Your task to perform on an android device: toggle notification dots Image 0: 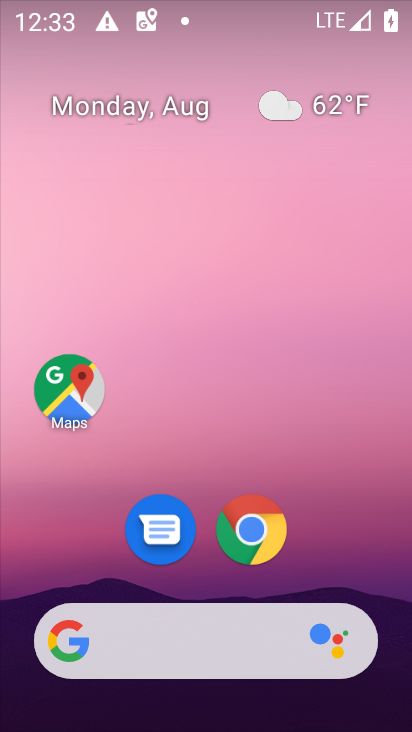
Step 0: drag from (158, 625) to (147, 388)
Your task to perform on an android device: toggle notification dots Image 1: 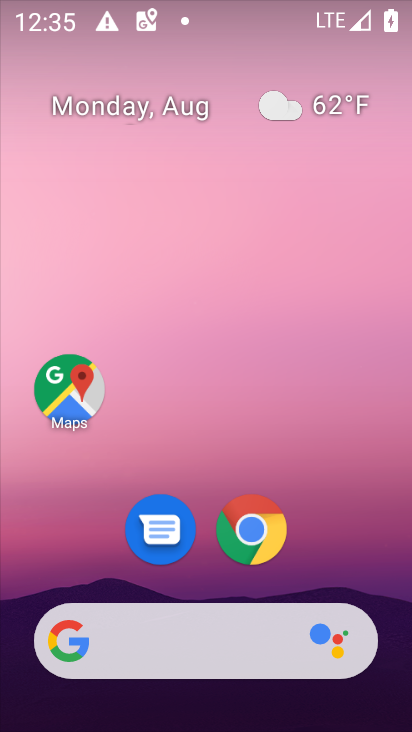
Step 1: drag from (159, 619) to (173, 157)
Your task to perform on an android device: toggle notification dots Image 2: 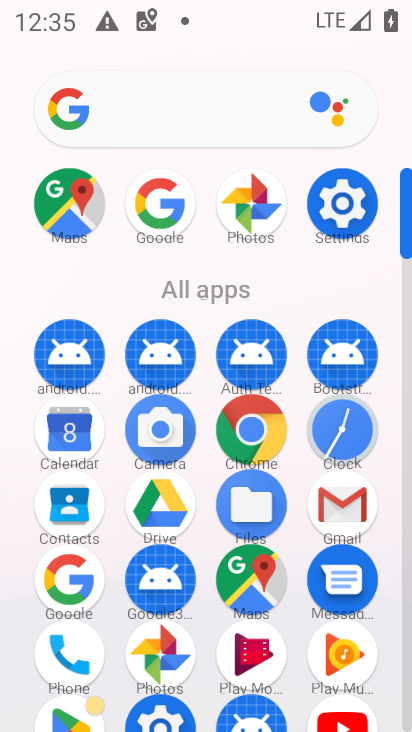
Step 2: click (348, 203)
Your task to perform on an android device: toggle notification dots Image 3: 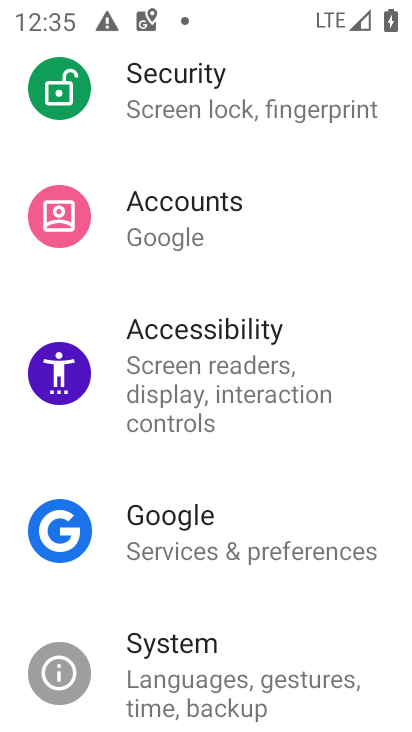
Step 3: drag from (348, 157) to (314, 568)
Your task to perform on an android device: toggle notification dots Image 4: 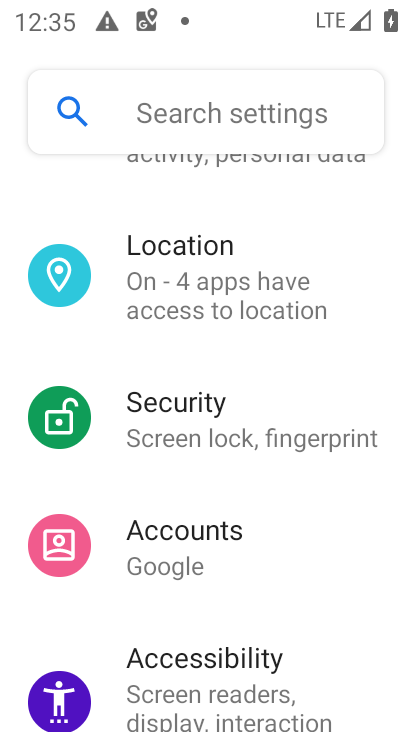
Step 4: drag from (211, 217) to (210, 573)
Your task to perform on an android device: toggle notification dots Image 5: 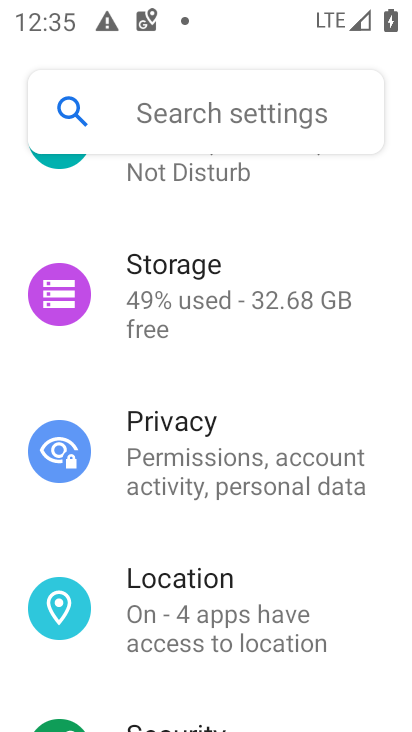
Step 5: drag from (188, 214) to (188, 566)
Your task to perform on an android device: toggle notification dots Image 6: 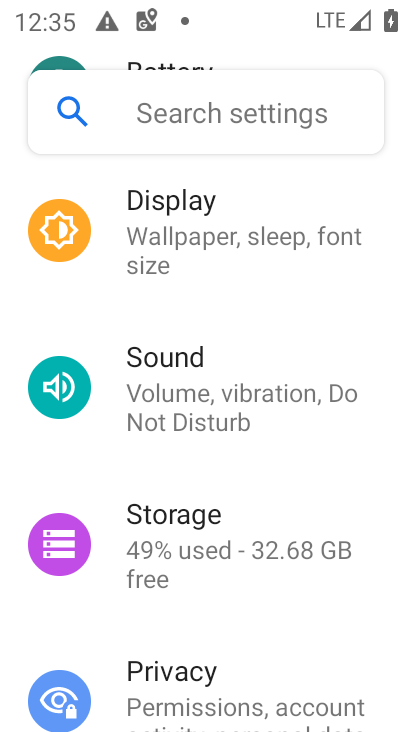
Step 6: drag from (152, 193) to (152, 580)
Your task to perform on an android device: toggle notification dots Image 7: 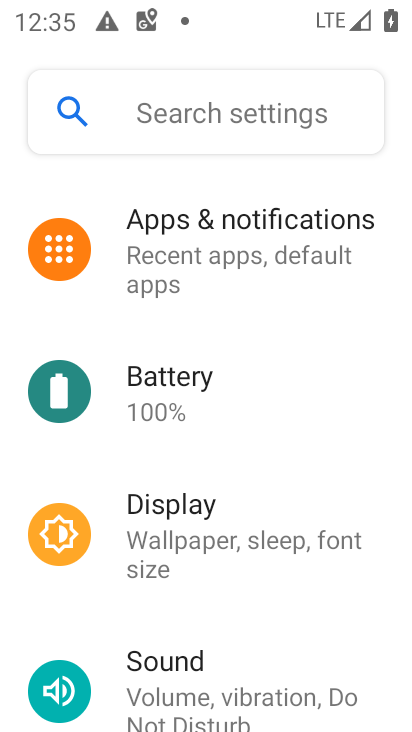
Step 7: click (137, 254)
Your task to perform on an android device: toggle notification dots Image 8: 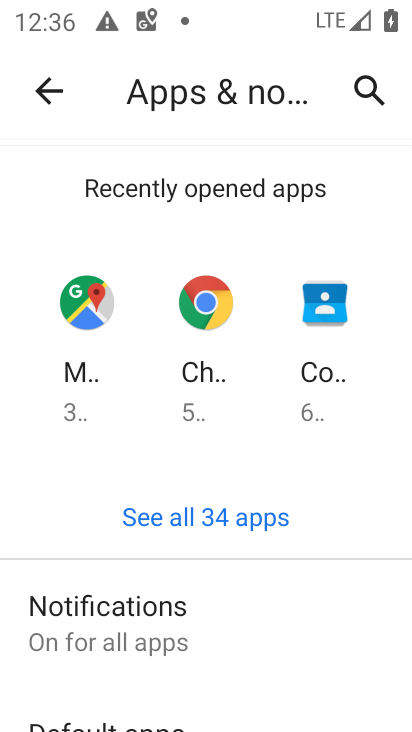
Step 8: click (140, 624)
Your task to perform on an android device: toggle notification dots Image 9: 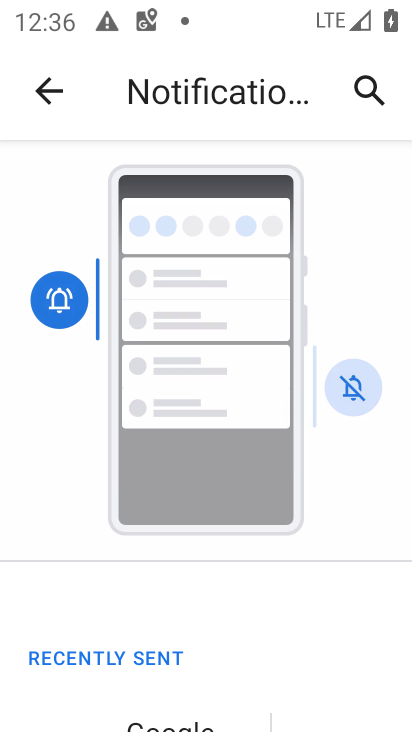
Step 9: drag from (206, 634) to (209, 354)
Your task to perform on an android device: toggle notification dots Image 10: 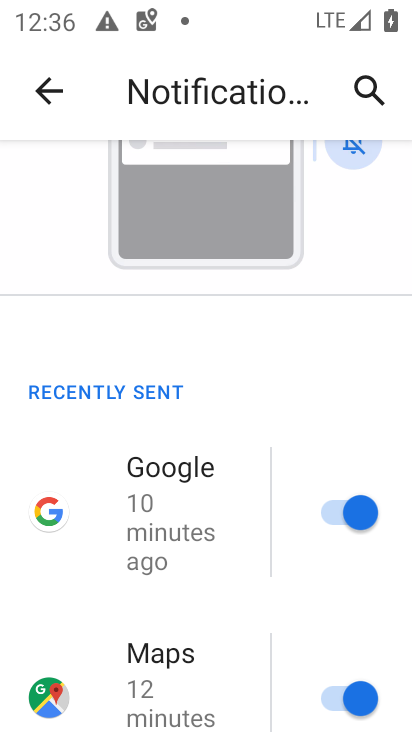
Step 10: drag from (187, 698) to (169, 419)
Your task to perform on an android device: toggle notification dots Image 11: 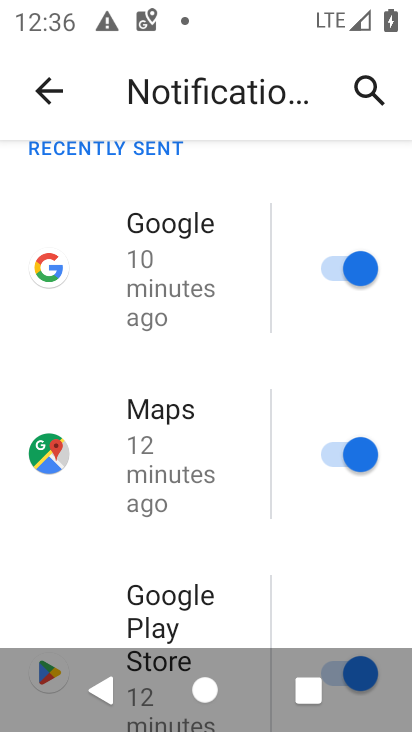
Step 11: drag from (155, 604) to (155, 405)
Your task to perform on an android device: toggle notification dots Image 12: 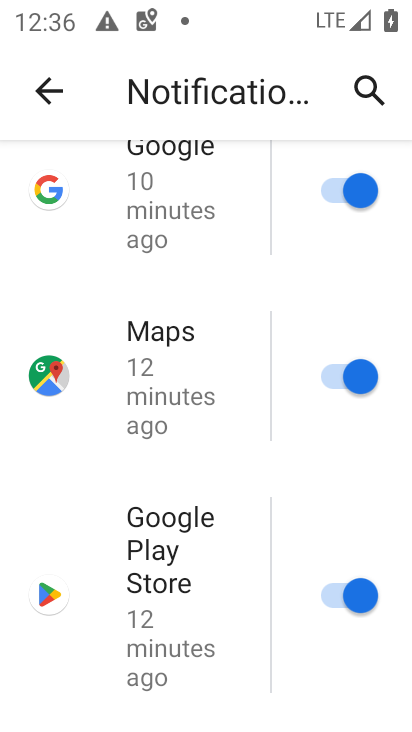
Step 12: drag from (185, 685) to (185, 449)
Your task to perform on an android device: toggle notification dots Image 13: 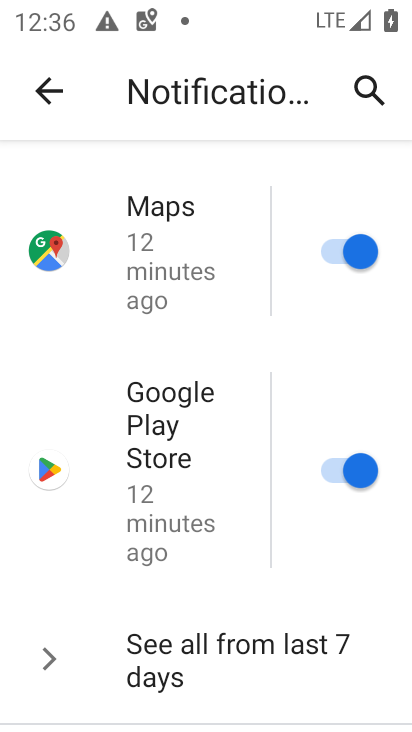
Step 13: drag from (171, 697) to (171, 443)
Your task to perform on an android device: toggle notification dots Image 14: 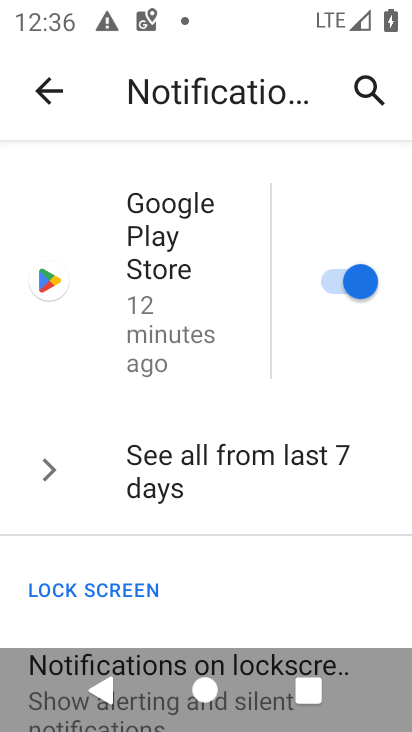
Step 14: drag from (206, 610) to (206, 397)
Your task to perform on an android device: toggle notification dots Image 15: 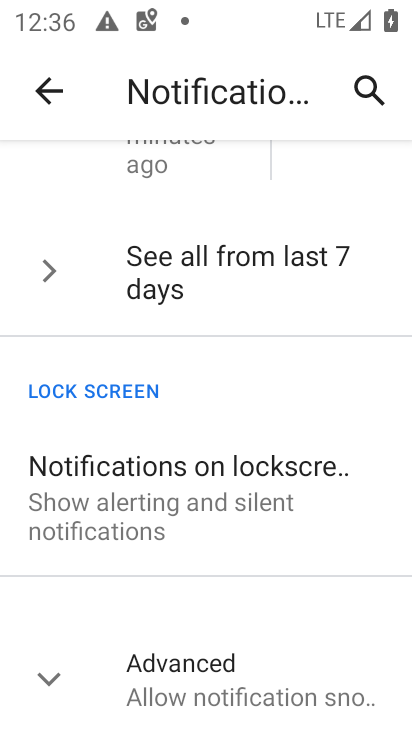
Step 15: click (173, 676)
Your task to perform on an android device: toggle notification dots Image 16: 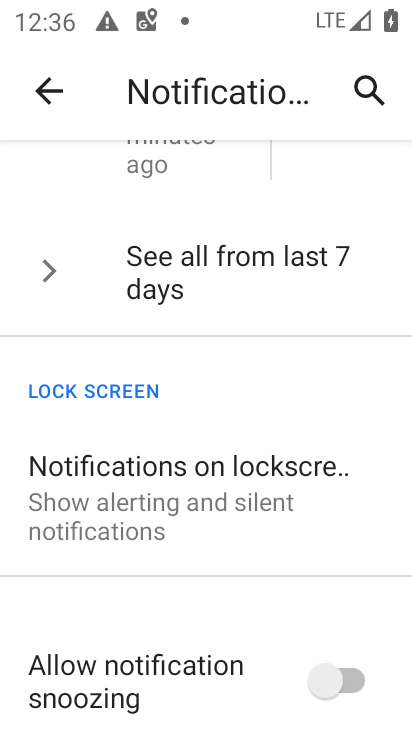
Step 16: drag from (185, 541) to (185, 380)
Your task to perform on an android device: toggle notification dots Image 17: 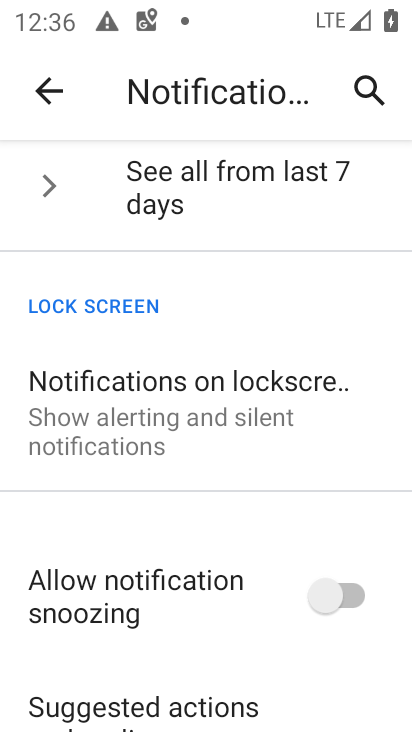
Step 17: drag from (129, 695) to (129, 479)
Your task to perform on an android device: toggle notification dots Image 18: 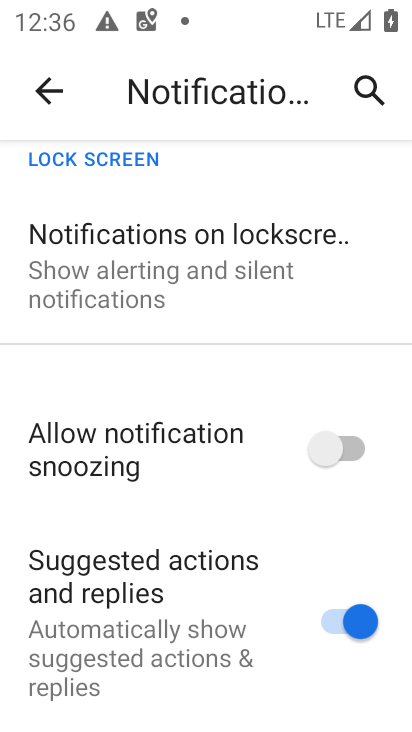
Step 18: drag from (117, 693) to (130, 473)
Your task to perform on an android device: toggle notification dots Image 19: 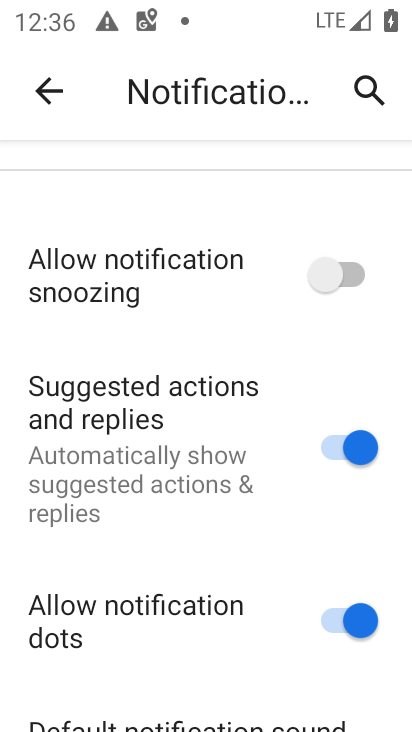
Step 19: click (339, 624)
Your task to perform on an android device: toggle notification dots Image 20: 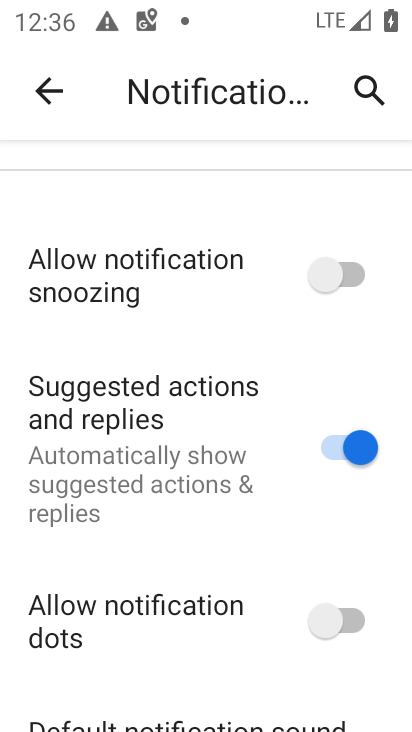
Step 20: task complete